Your task to perform on an android device: What's on my calendar today? Image 0: 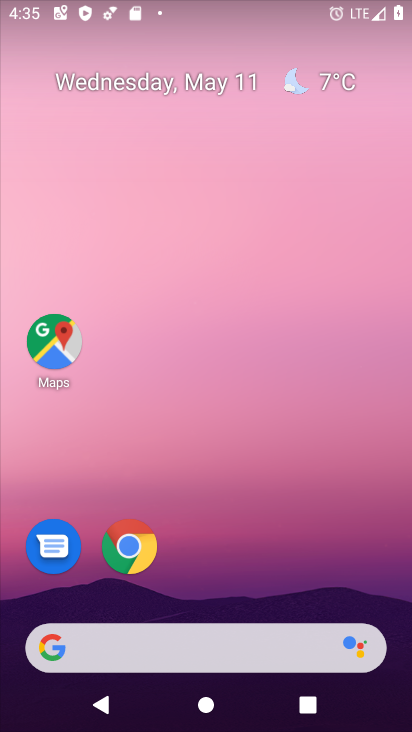
Step 0: drag from (353, 652) to (339, 5)
Your task to perform on an android device: What's on my calendar today? Image 1: 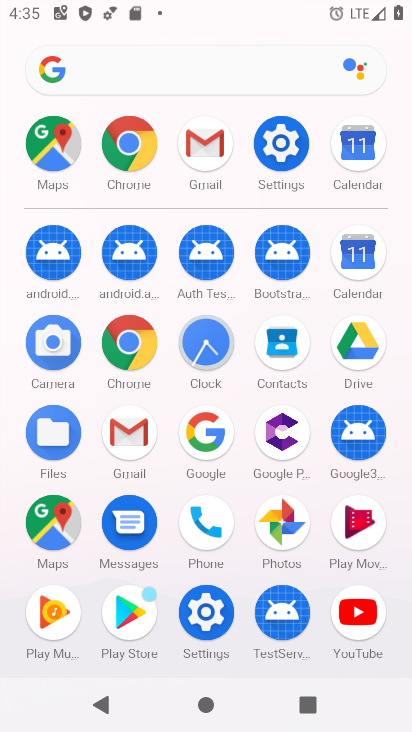
Step 1: click (369, 259)
Your task to perform on an android device: What's on my calendar today? Image 2: 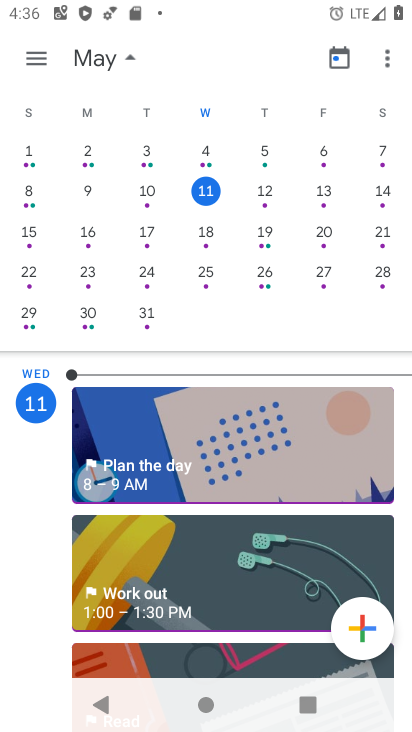
Step 2: click (209, 198)
Your task to perform on an android device: What's on my calendar today? Image 3: 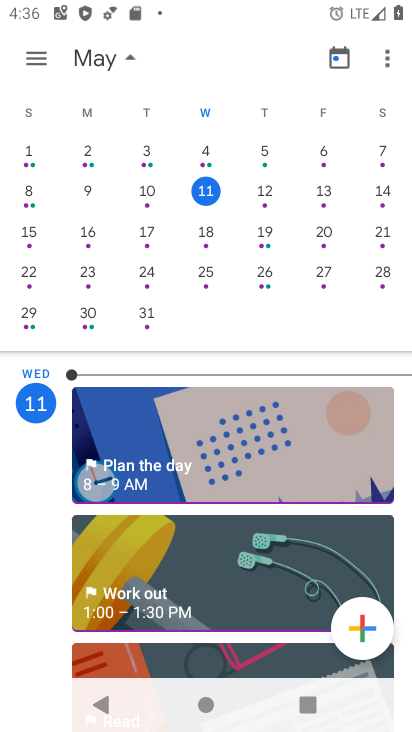
Step 3: task complete